Your task to perform on an android device: Search for vegetarian restaurants on Maps Image 0: 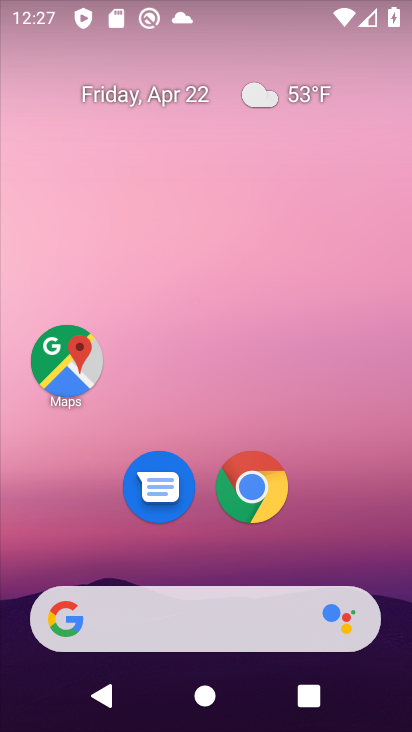
Step 0: drag from (350, 495) to (410, 70)
Your task to perform on an android device: Search for vegetarian restaurants on Maps Image 1: 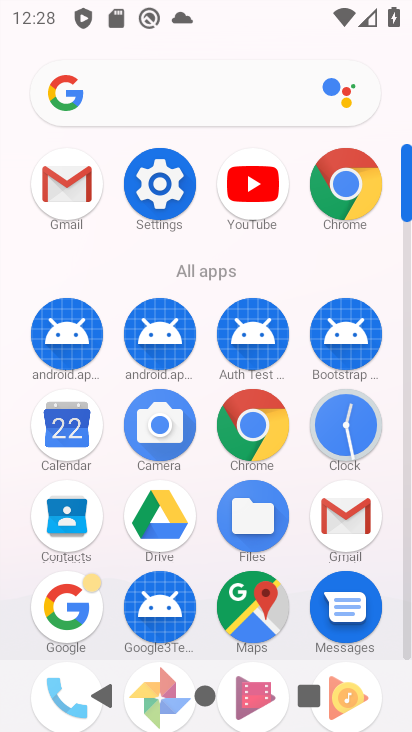
Step 1: click (277, 601)
Your task to perform on an android device: Search for vegetarian restaurants on Maps Image 2: 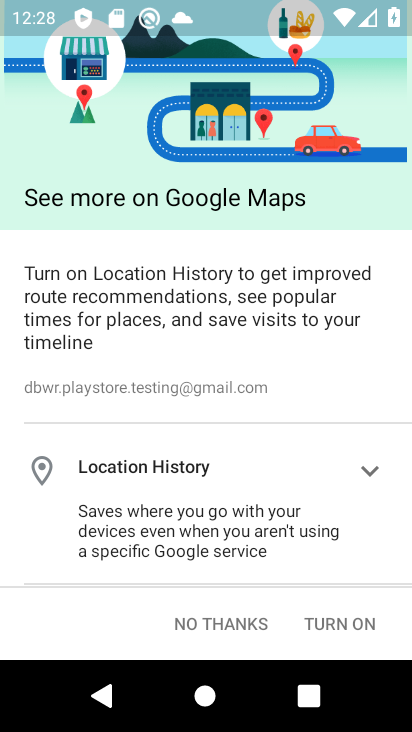
Step 2: click (362, 619)
Your task to perform on an android device: Search for vegetarian restaurants on Maps Image 3: 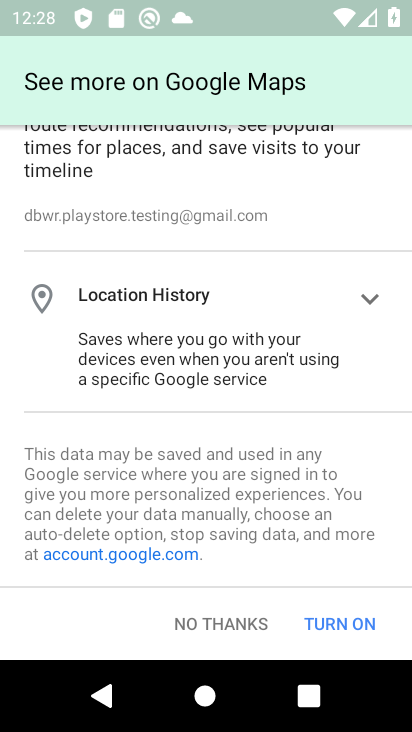
Step 3: click (361, 620)
Your task to perform on an android device: Search for vegetarian restaurants on Maps Image 4: 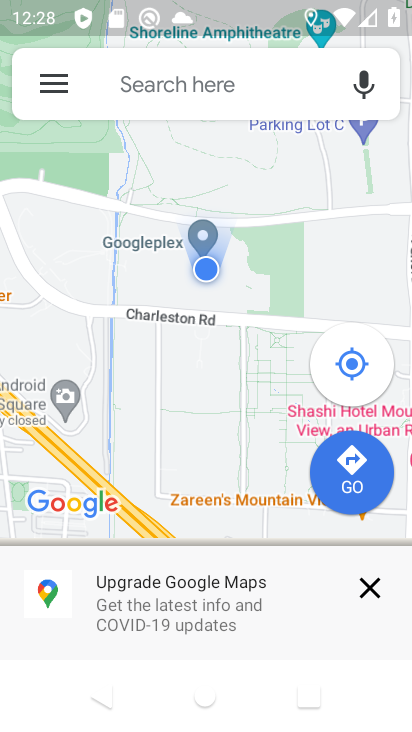
Step 4: click (184, 108)
Your task to perform on an android device: Search for vegetarian restaurants on Maps Image 5: 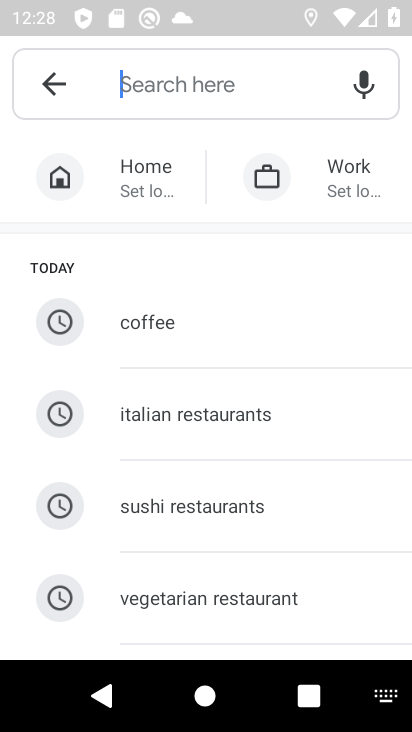
Step 5: click (233, 605)
Your task to perform on an android device: Search for vegetarian restaurants on Maps Image 6: 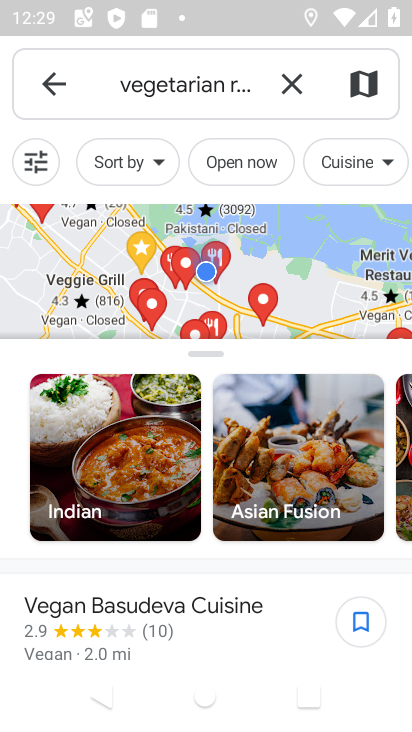
Step 6: task complete